Your task to perform on an android device: Go to Amazon Image 0: 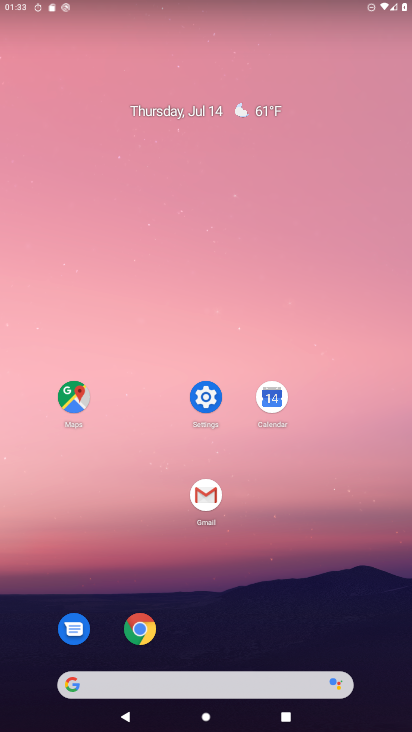
Step 0: click (132, 631)
Your task to perform on an android device: Go to Amazon Image 1: 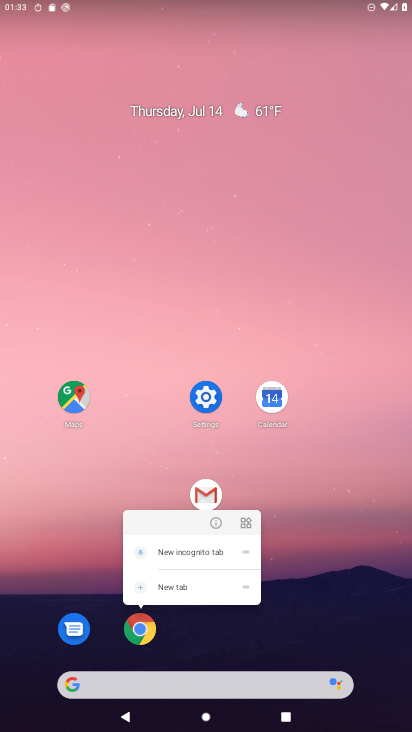
Step 1: click (139, 632)
Your task to perform on an android device: Go to Amazon Image 2: 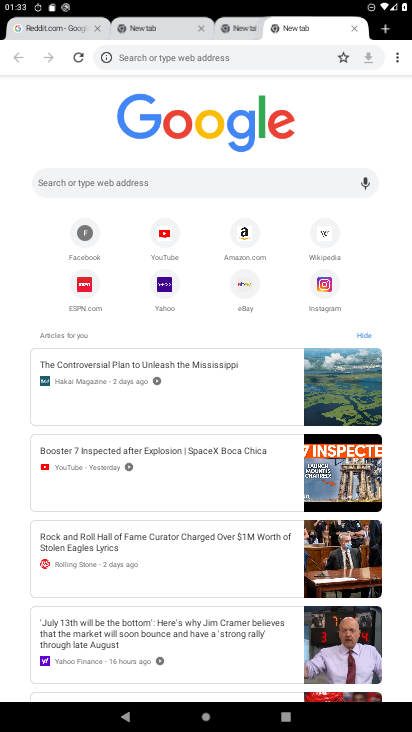
Step 2: click (304, 53)
Your task to perform on an android device: Go to Amazon Image 3: 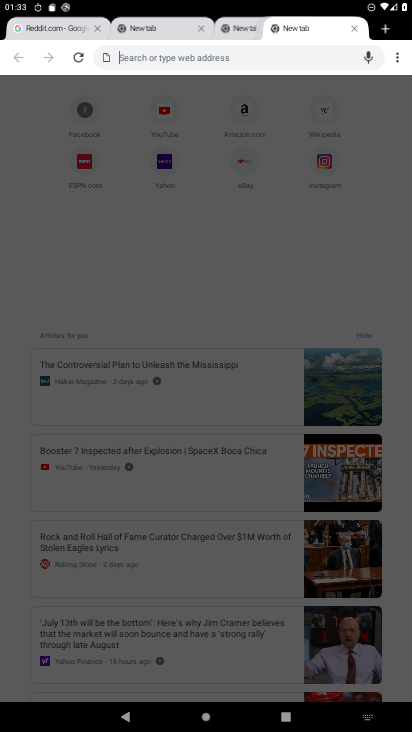
Step 3: type "Amazon"
Your task to perform on an android device: Go to Amazon Image 4: 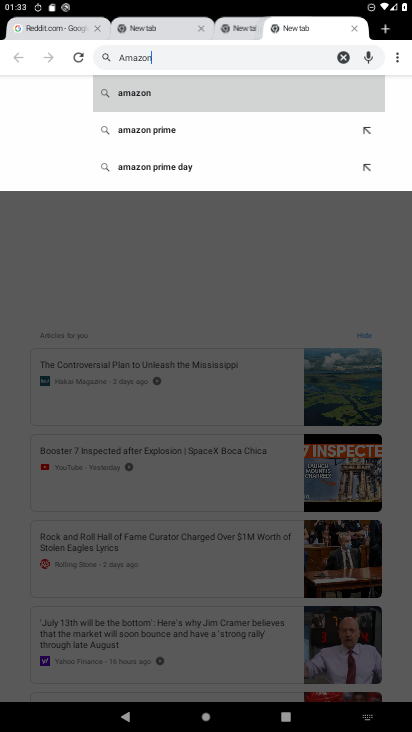
Step 4: click (142, 97)
Your task to perform on an android device: Go to Amazon Image 5: 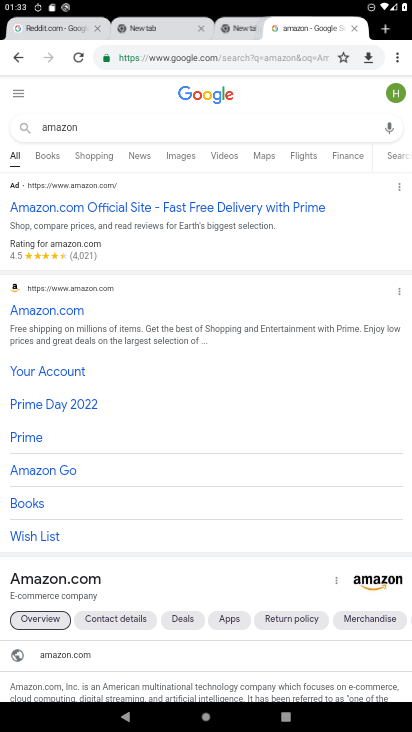
Step 5: task complete